Your task to perform on an android device: toggle data saver in the chrome app Image 0: 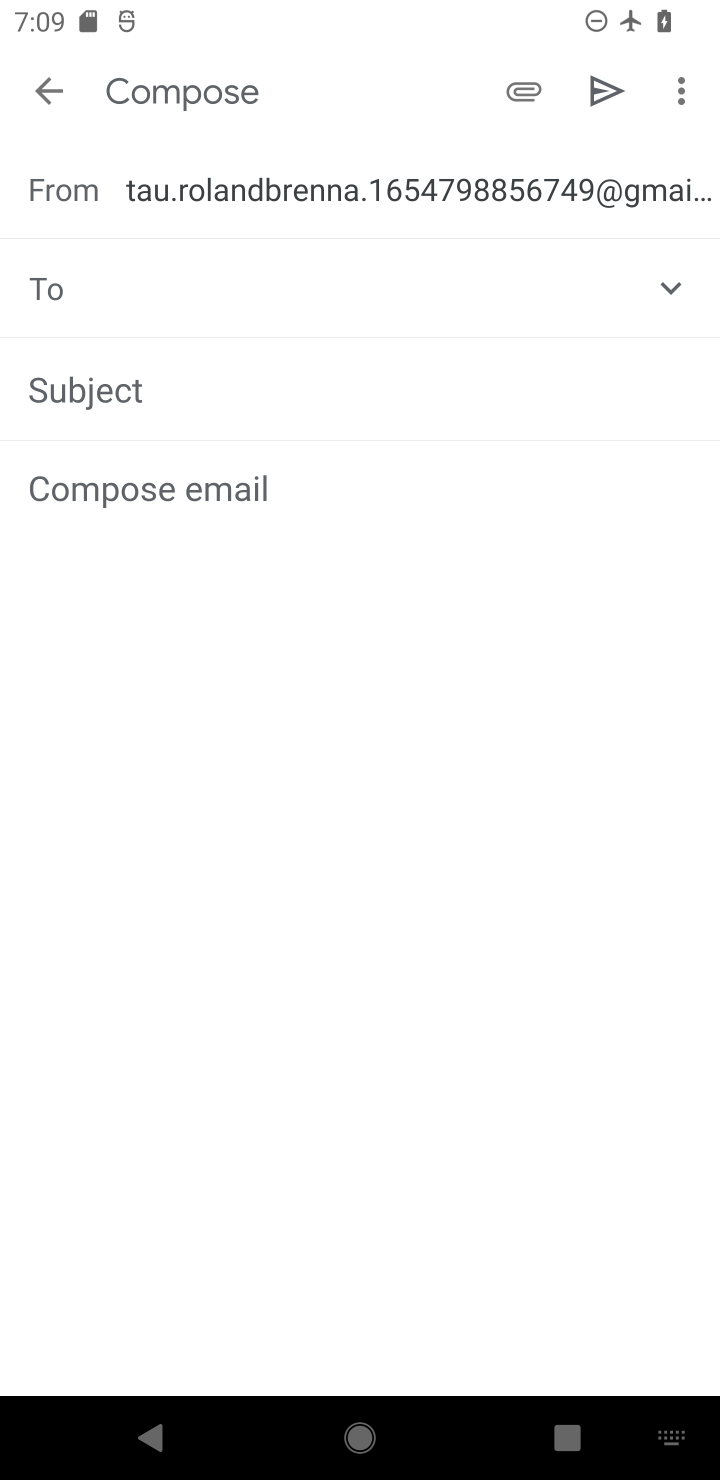
Step 0: press home button
Your task to perform on an android device: toggle data saver in the chrome app Image 1: 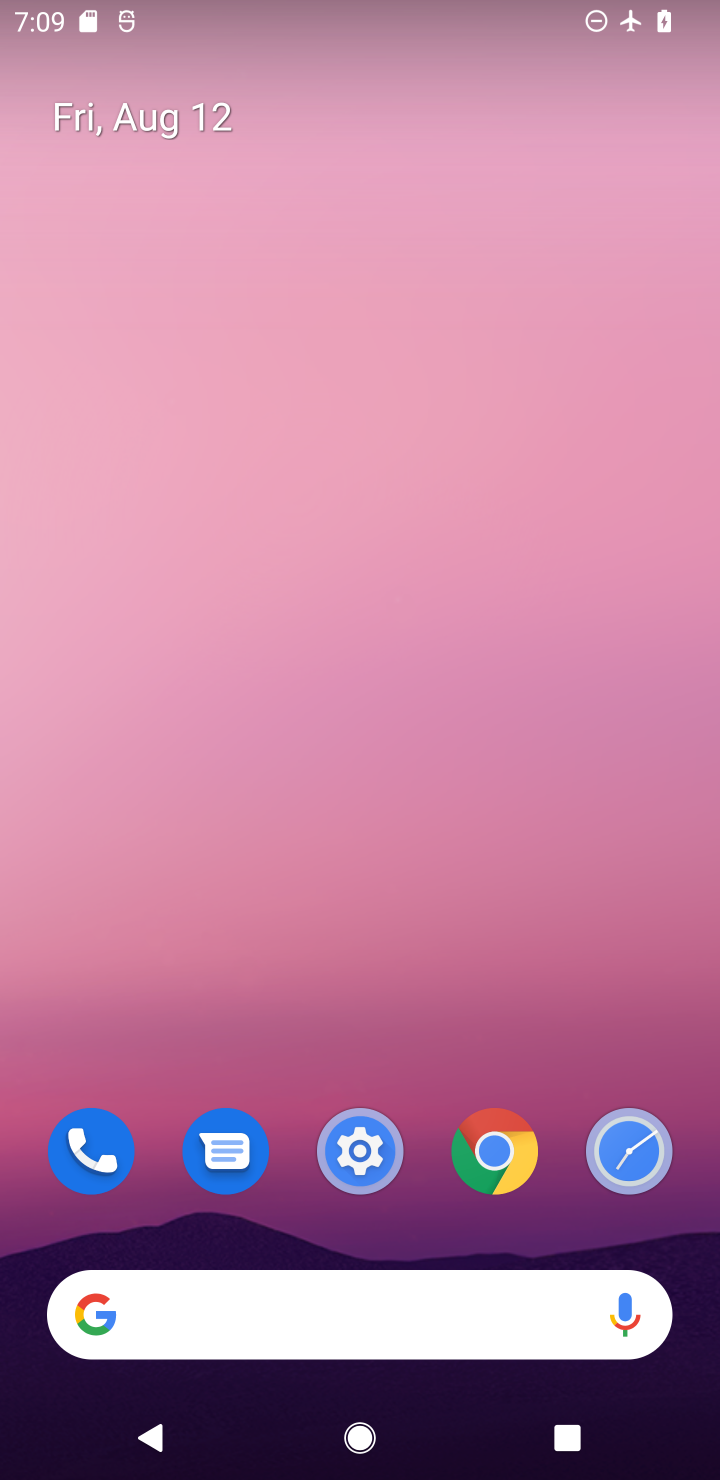
Step 1: drag from (499, 754) to (483, 0)
Your task to perform on an android device: toggle data saver in the chrome app Image 2: 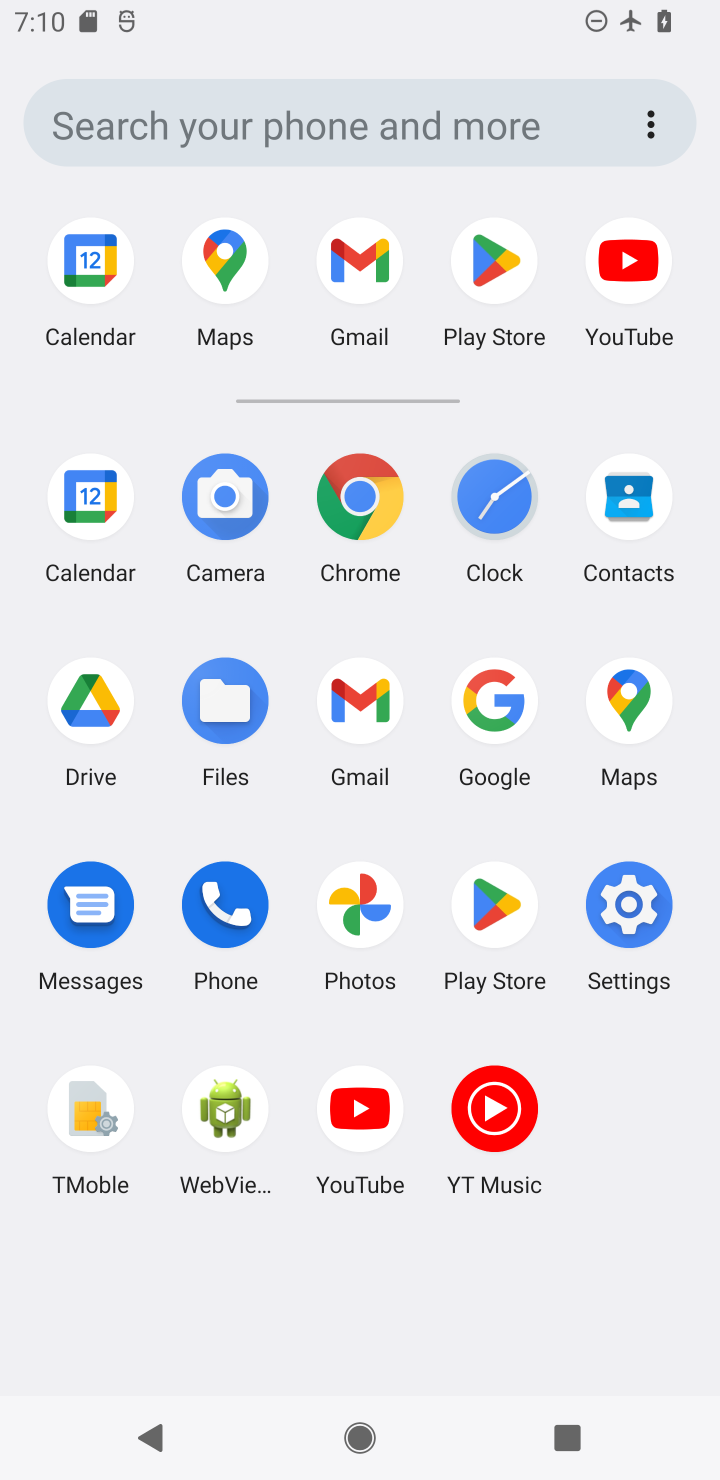
Step 2: click (359, 489)
Your task to perform on an android device: toggle data saver in the chrome app Image 3: 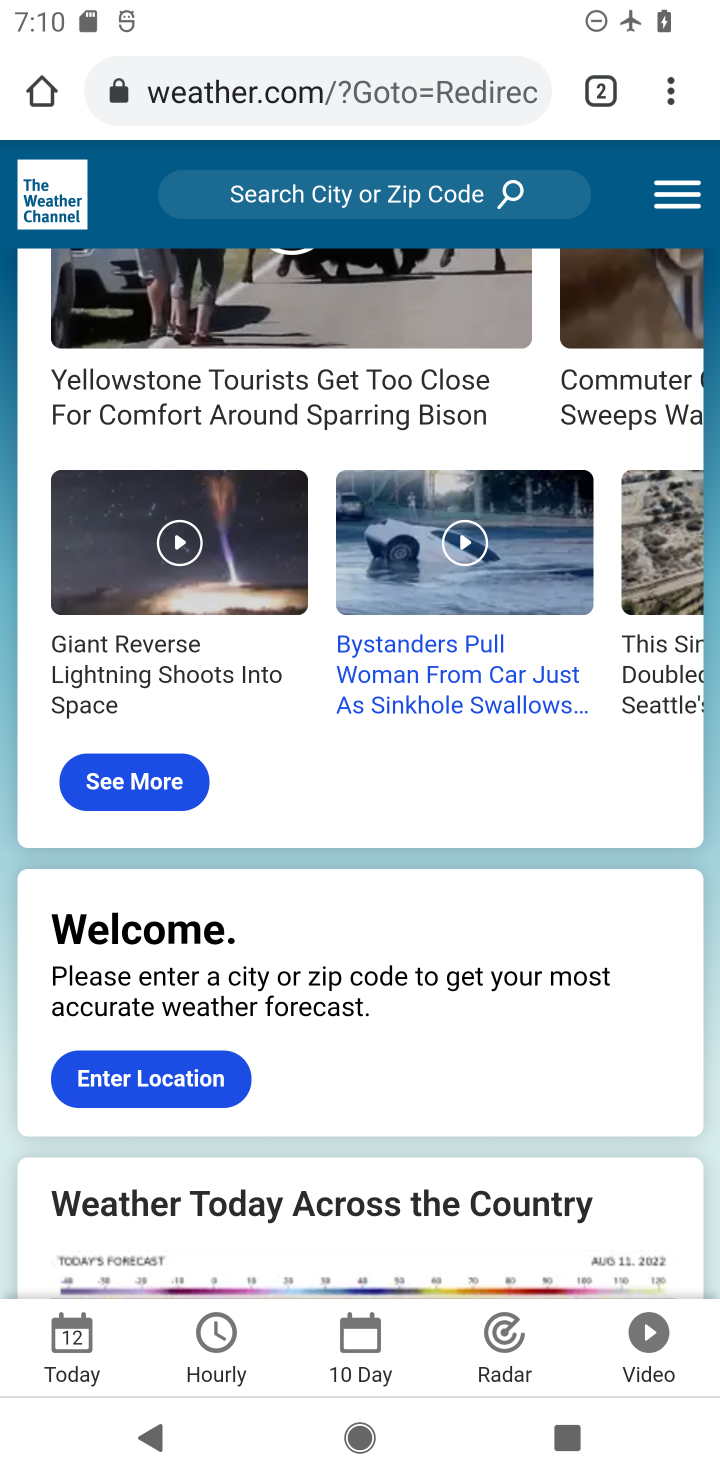
Step 3: drag from (684, 103) to (358, 1200)
Your task to perform on an android device: toggle data saver in the chrome app Image 4: 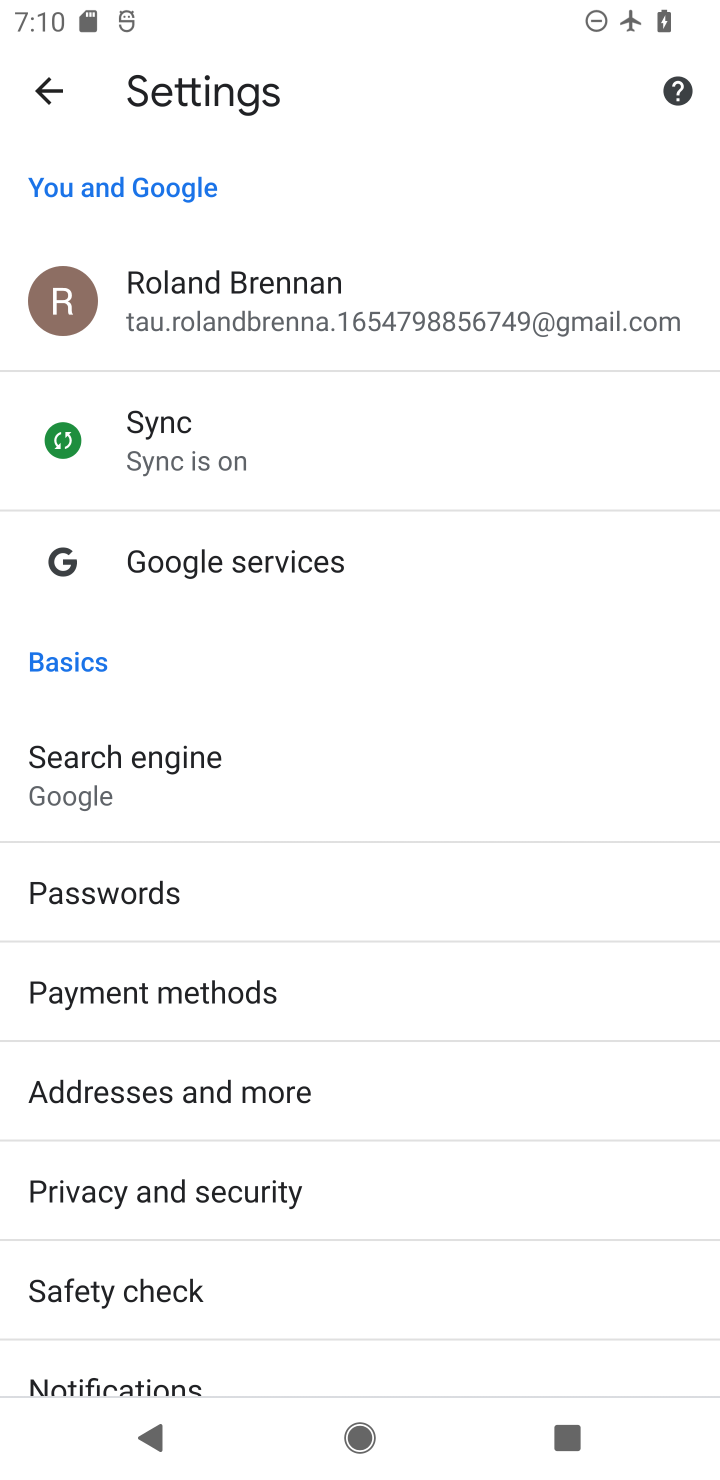
Step 4: drag from (429, 1134) to (469, 203)
Your task to perform on an android device: toggle data saver in the chrome app Image 5: 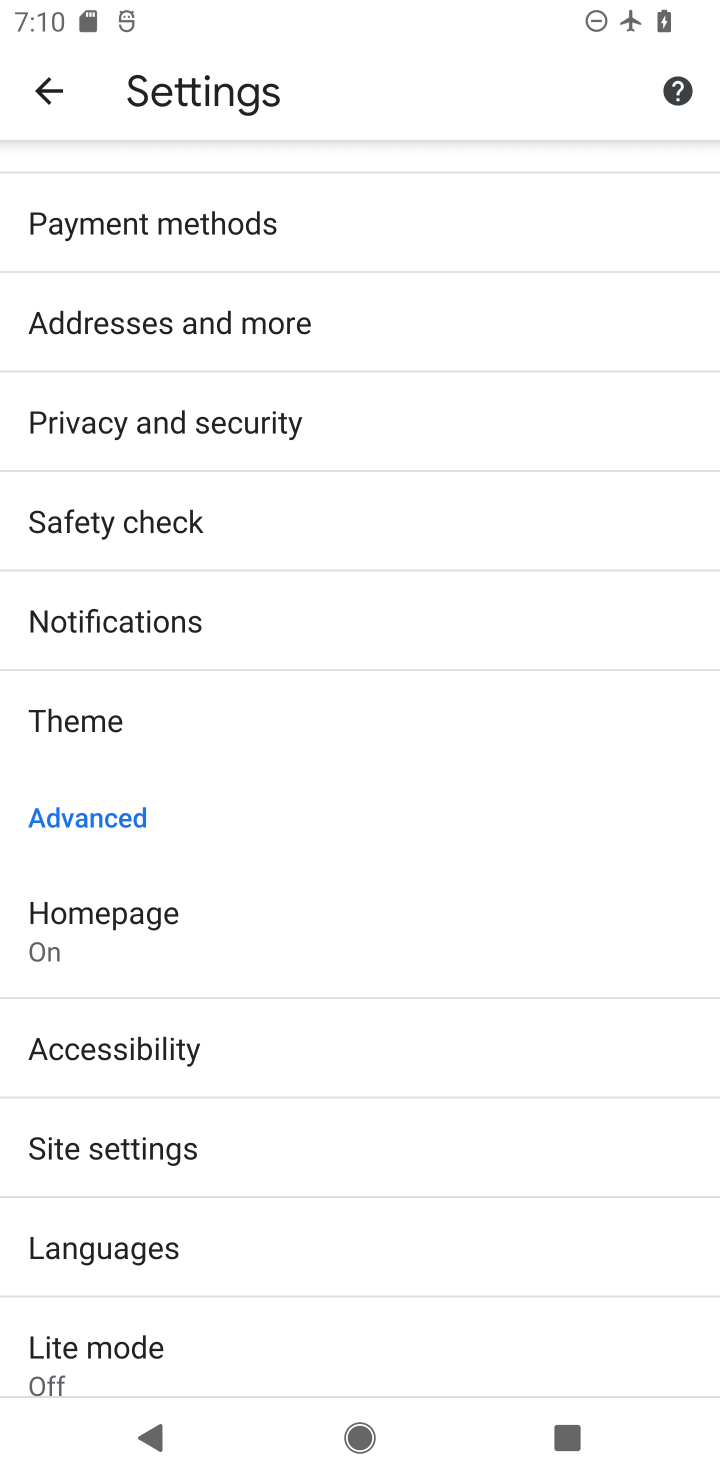
Step 5: drag from (343, 1186) to (396, 515)
Your task to perform on an android device: toggle data saver in the chrome app Image 6: 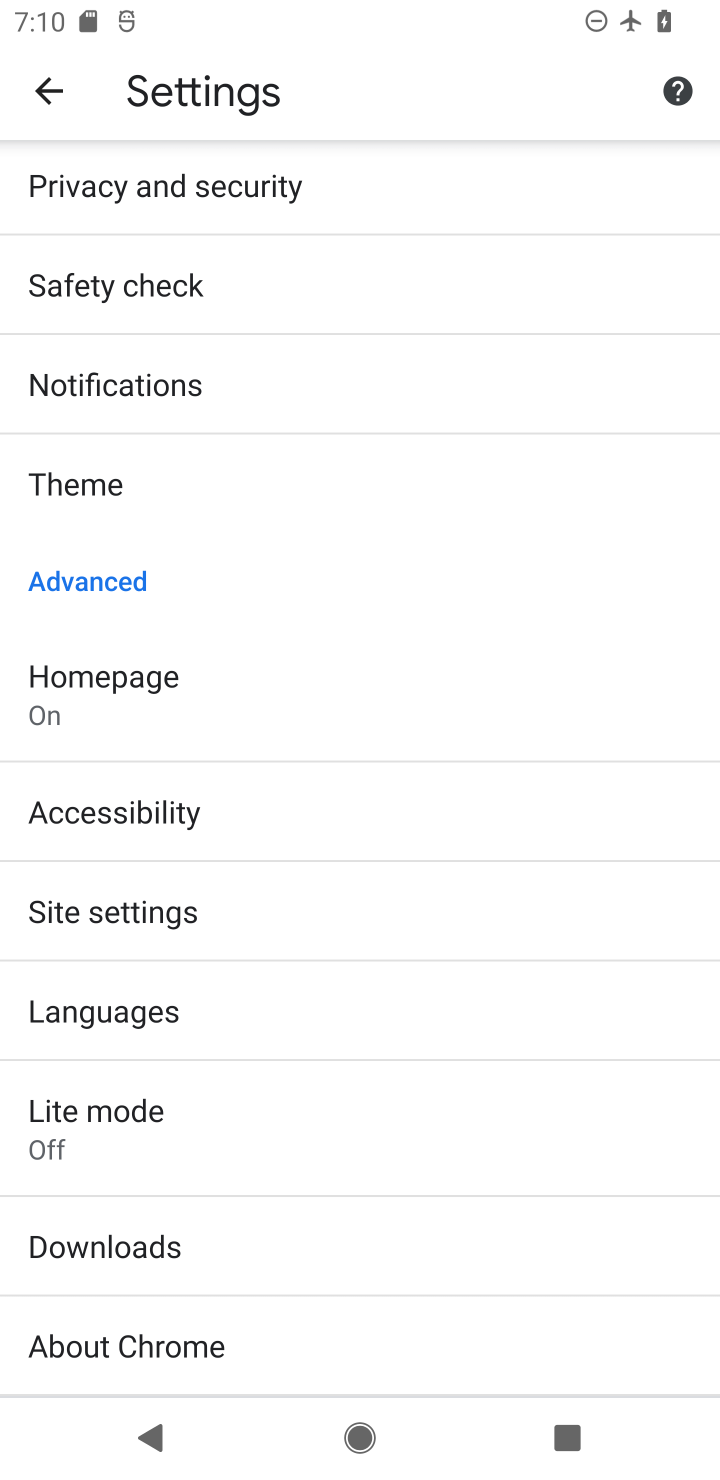
Step 6: click (157, 1123)
Your task to perform on an android device: toggle data saver in the chrome app Image 7: 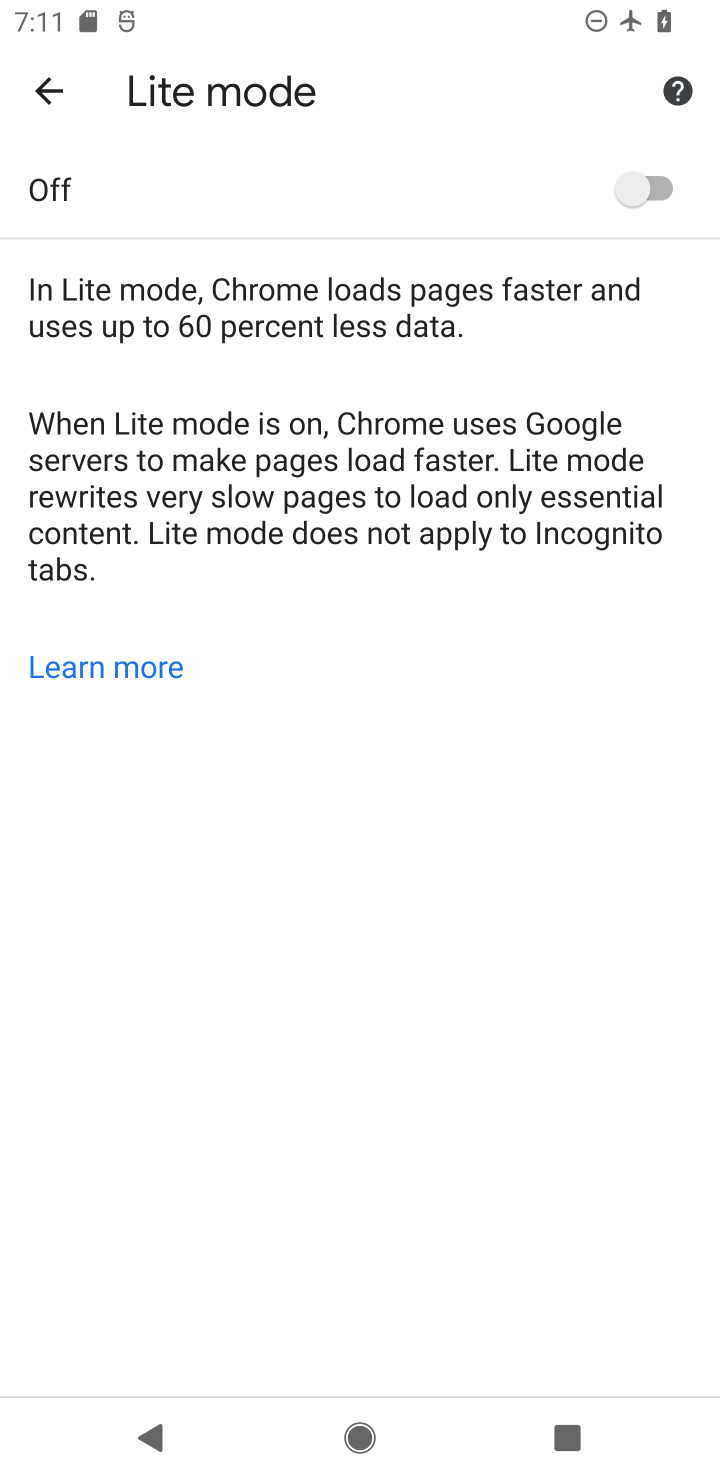
Step 7: click (648, 170)
Your task to perform on an android device: toggle data saver in the chrome app Image 8: 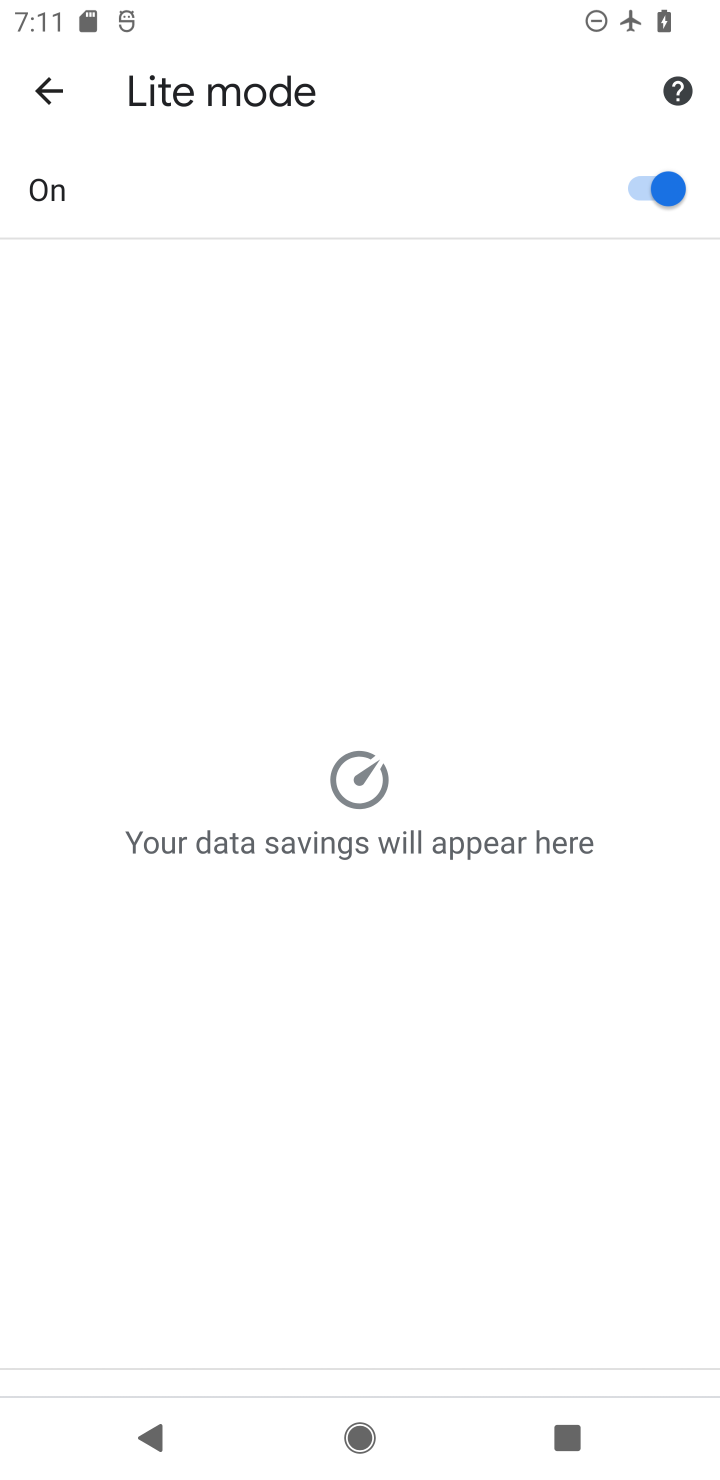
Step 8: task complete